Your task to perform on an android device: turn on notifications settings in the gmail app Image 0: 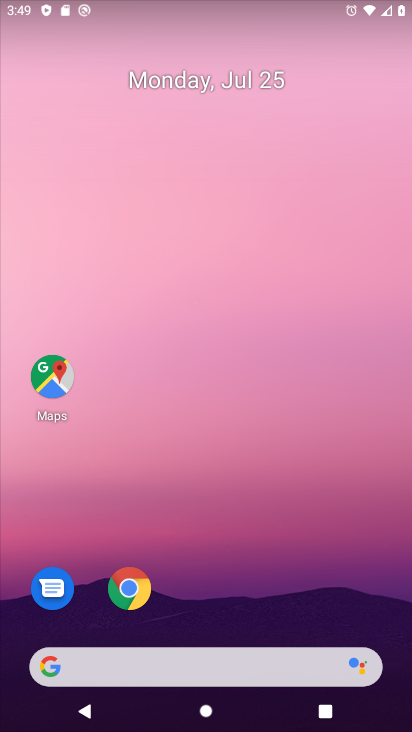
Step 0: click (399, 511)
Your task to perform on an android device: turn on notifications settings in the gmail app Image 1: 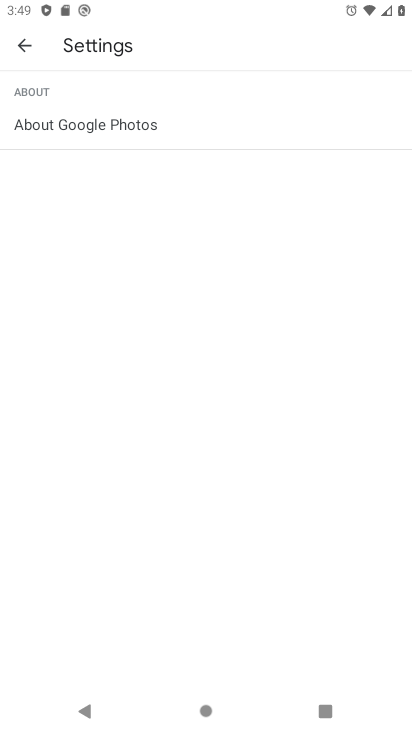
Step 1: press home button
Your task to perform on an android device: turn on notifications settings in the gmail app Image 2: 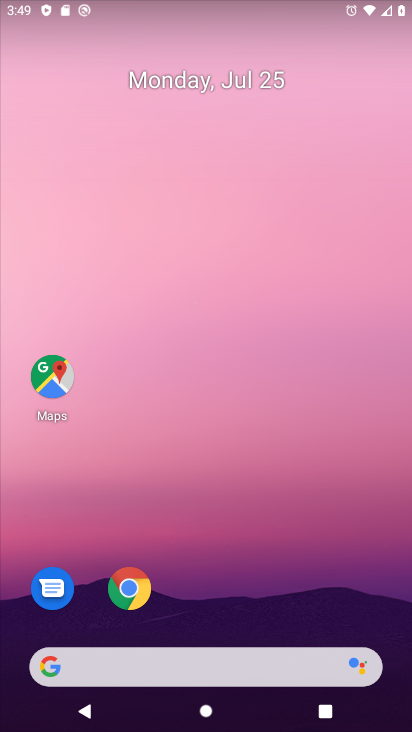
Step 2: drag from (226, 707) to (225, 201)
Your task to perform on an android device: turn on notifications settings in the gmail app Image 3: 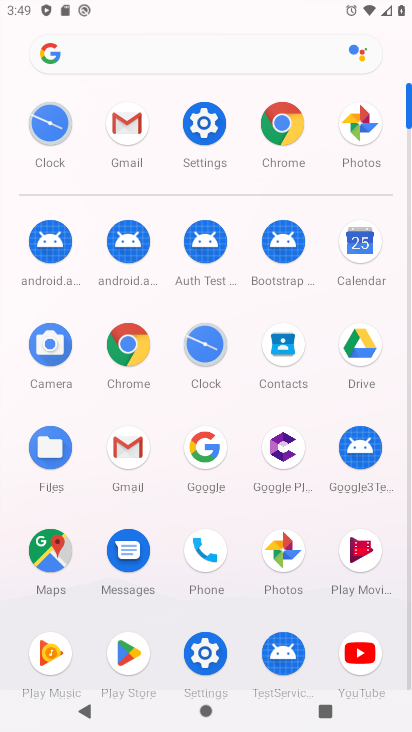
Step 3: click (123, 120)
Your task to perform on an android device: turn on notifications settings in the gmail app Image 4: 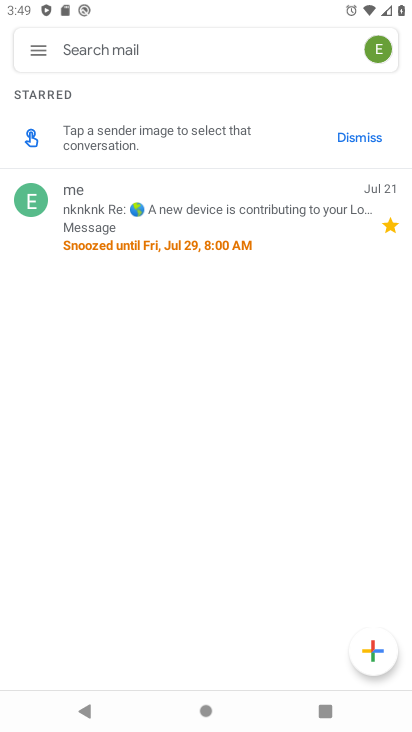
Step 4: click (37, 49)
Your task to perform on an android device: turn on notifications settings in the gmail app Image 5: 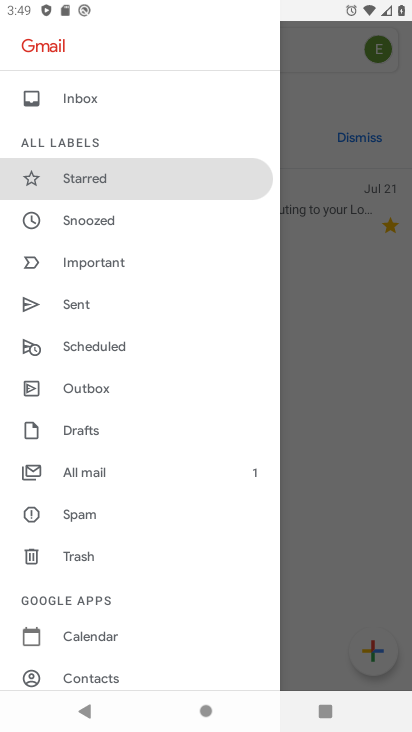
Step 5: drag from (136, 667) to (159, 267)
Your task to perform on an android device: turn on notifications settings in the gmail app Image 6: 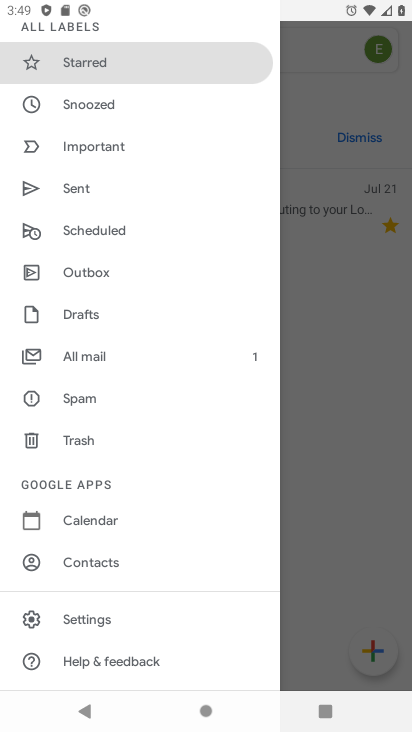
Step 6: click (89, 614)
Your task to perform on an android device: turn on notifications settings in the gmail app Image 7: 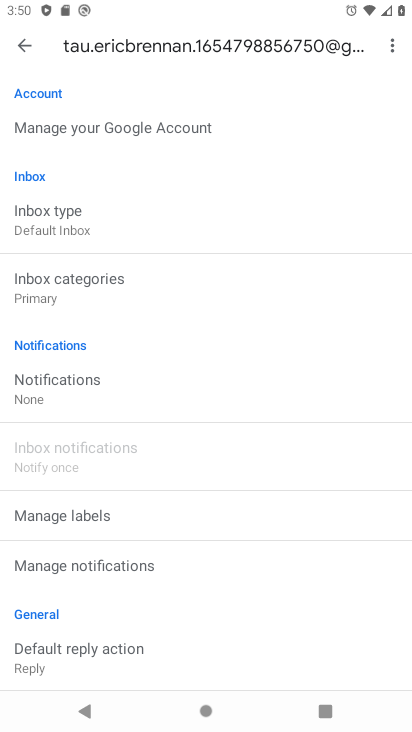
Step 7: click (46, 388)
Your task to perform on an android device: turn on notifications settings in the gmail app Image 8: 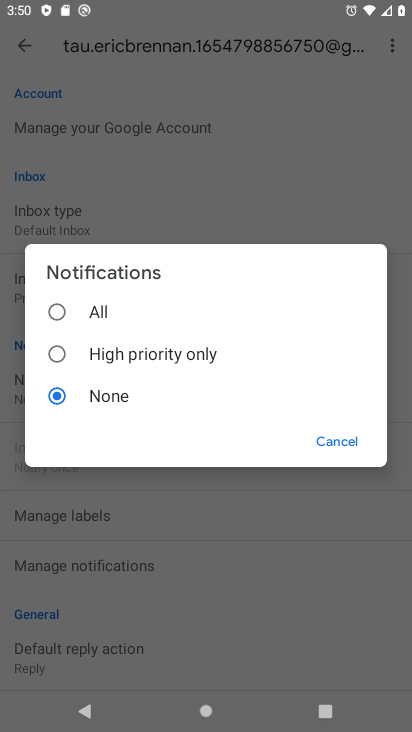
Step 8: click (51, 308)
Your task to perform on an android device: turn on notifications settings in the gmail app Image 9: 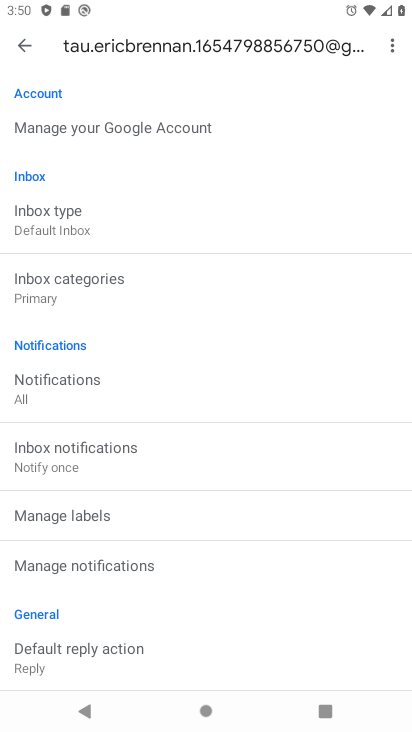
Step 9: task complete